Your task to perform on an android device: Turn off the flashlight Image 0: 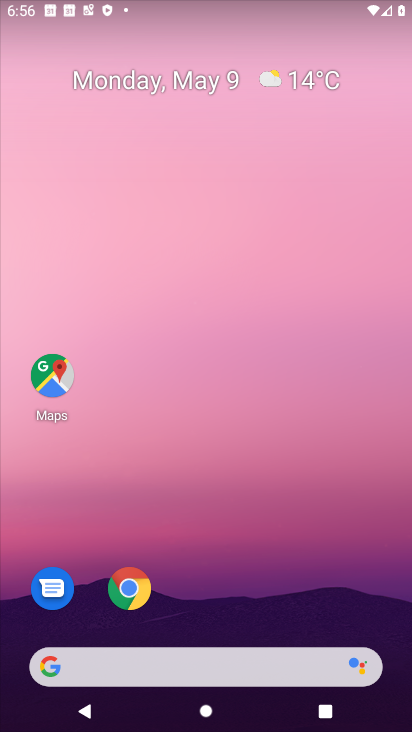
Step 0: drag from (312, 616) to (191, 29)
Your task to perform on an android device: Turn off the flashlight Image 1: 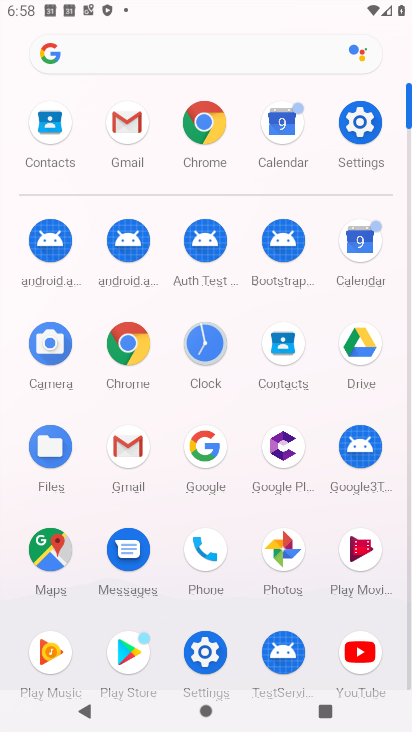
Step 1: task complete